Your task to perform on an android device: check out phone information Image 0: 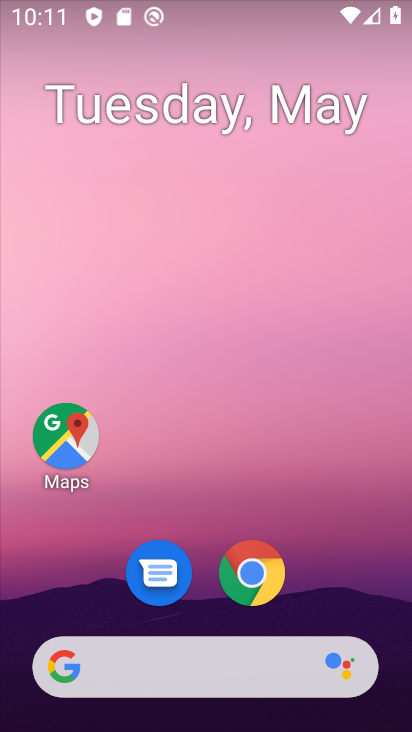
Step 0: drag from (311, 570) to (303, 78)
Your task to perform on an android device: check out phone information Image 1: 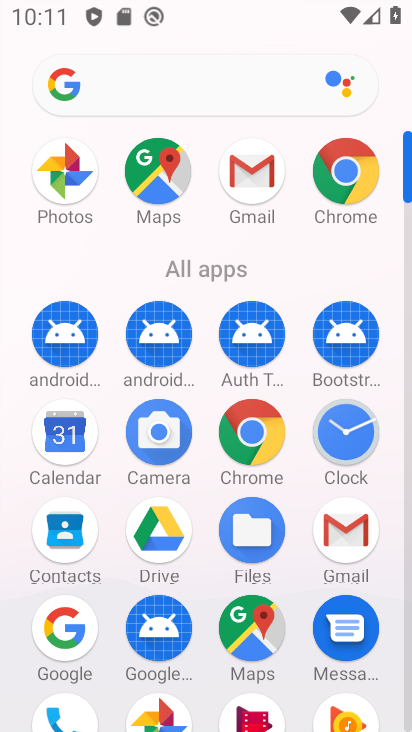
Step 1: drag from (208, 358) to (208, 30)
Your task to perform on an android device: check out phone information Image 2: 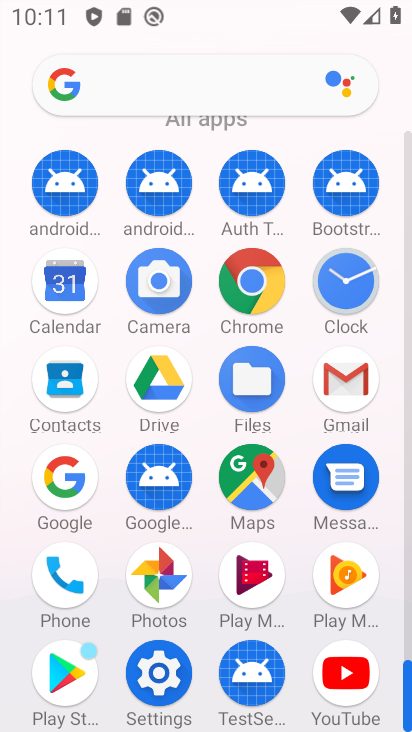
Step 2: click (66, 564)
Your task to perform on an android device: check out phone information Image 3: 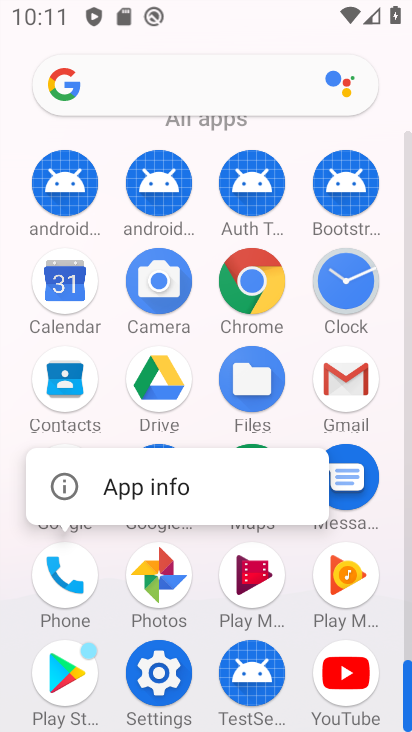
Step 3: click (122, 490)
Your task to perform on an android device: check out phone information Image 4: 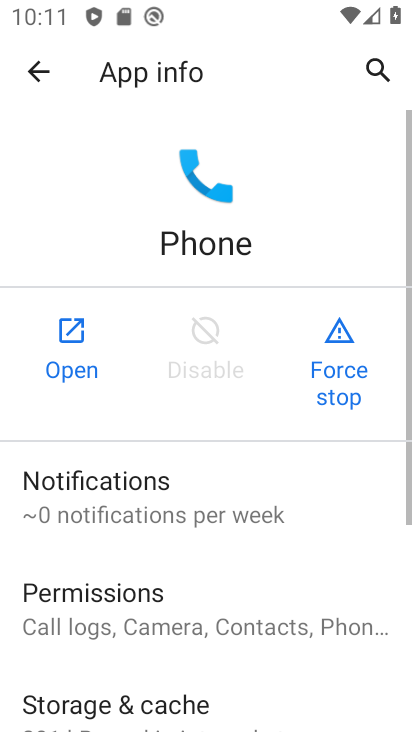
Step 4: task complete